Your task to perform on an android device: add a label to a message in the gmail app Image 0: 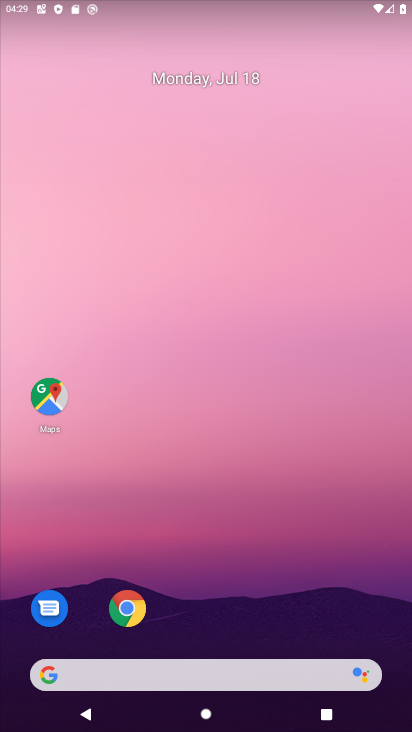
Step 0: drag from (278, 612) to (252, 29)
Your task to perform on an android device: add a label to a message in the gmail app Image 1: 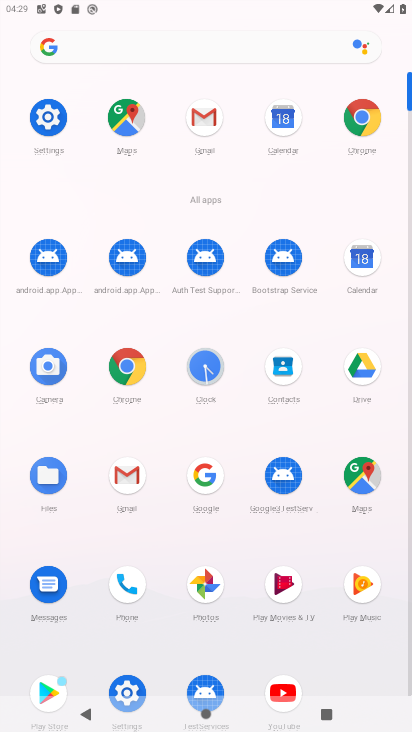
Step 1: click (209, 154)
Your task to perform on an android device: add a label to a message in the gmail app Image 2: 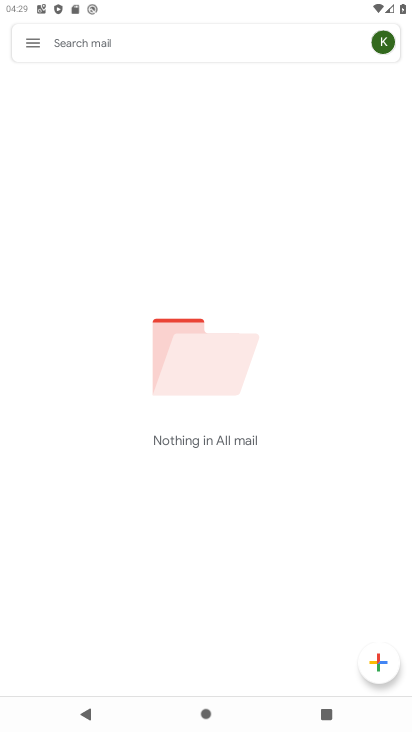
Step 2: task complete